Your task to perform on an android device: turn off translation in the chrome app Image 0: 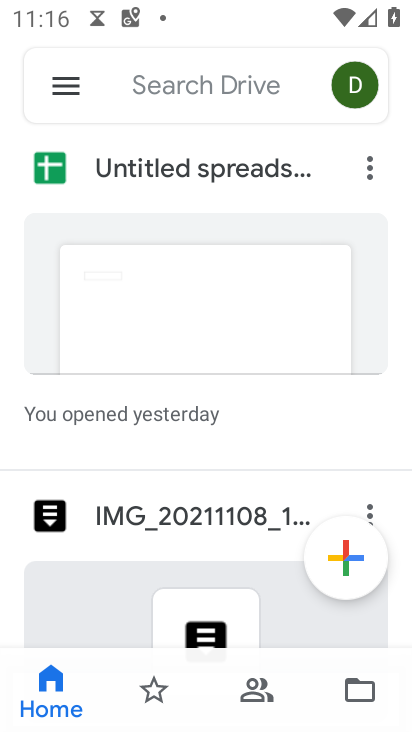
Step 0: press home button
Your task to perform on an android device: turn off translation in the chrome app Image 1: 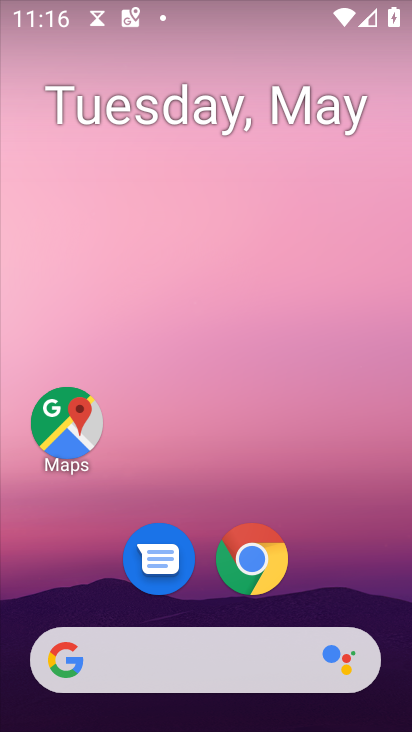
Step 1: click (252, 556)
Your task to perform on an android device: turn off translation in the chrome app Image 2: 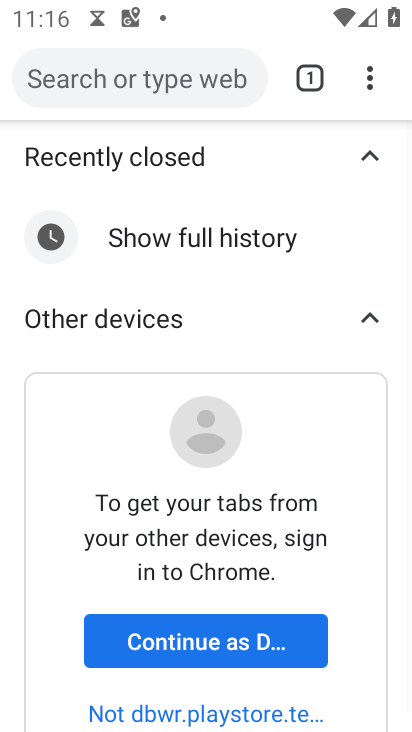
Step 2: drag from (379, 91) to (110, 625)
Your task to perform on an android device: turn off translation in the chrome app Image 3: 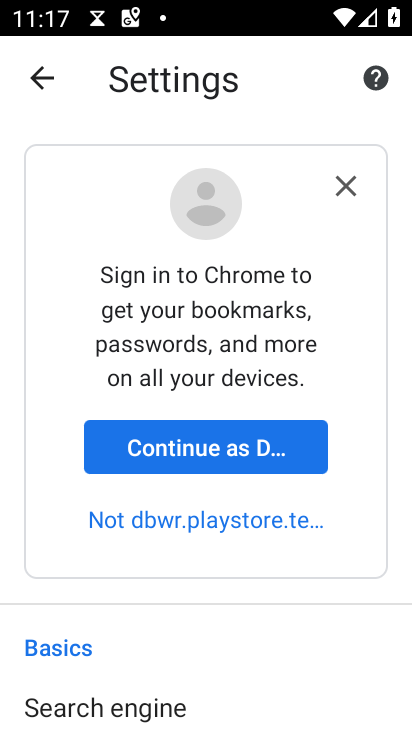
Step 3: drag from (232, 604) to (193, 210)
Your task to perform on an android device: turn off translation in the chrome app Image 4: 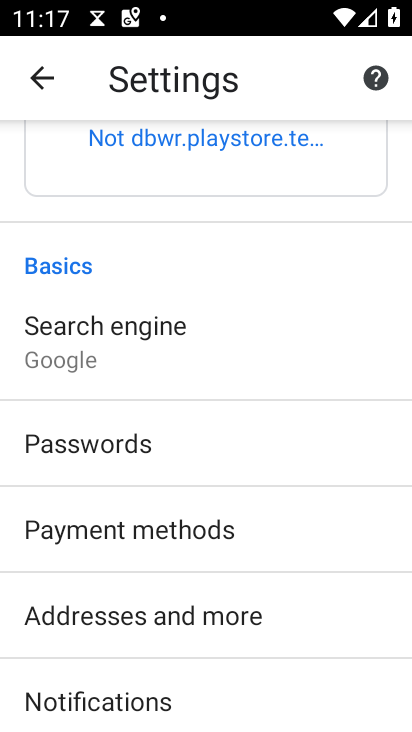
Step 4: drag from (256, 591) to (222, 269)
Your task to perform on an android device: turn off translation in the chrome app Image 5: 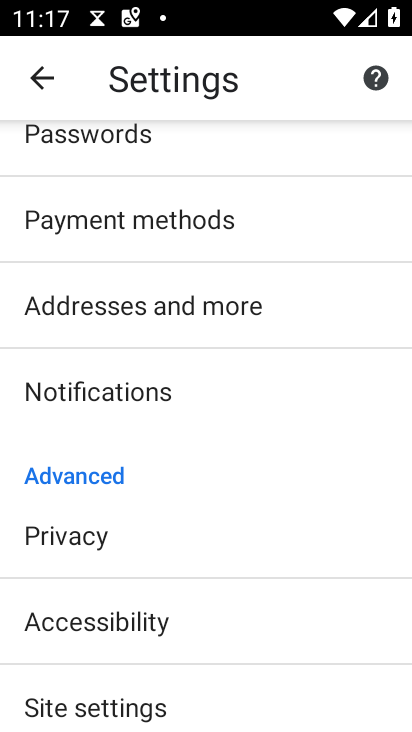
Step 5: drag from (199, 608) to (213, 242)
Your task to perform on an android device: turn off translation in the chrome app Image 6: 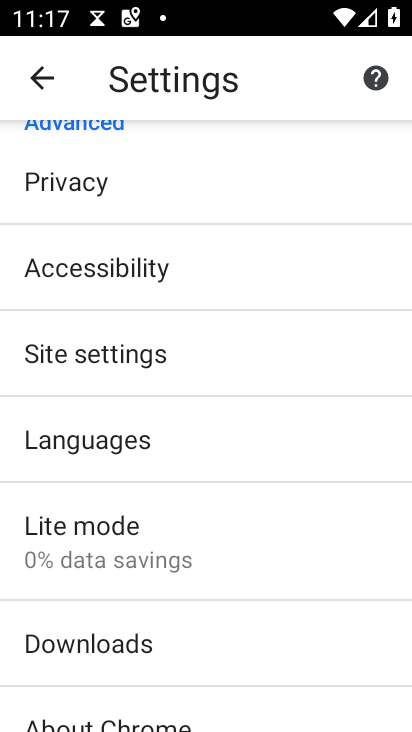
Step 6: click (78, 463)
Your task to perform on an android device: turn off translation in the chrome app Image 7: 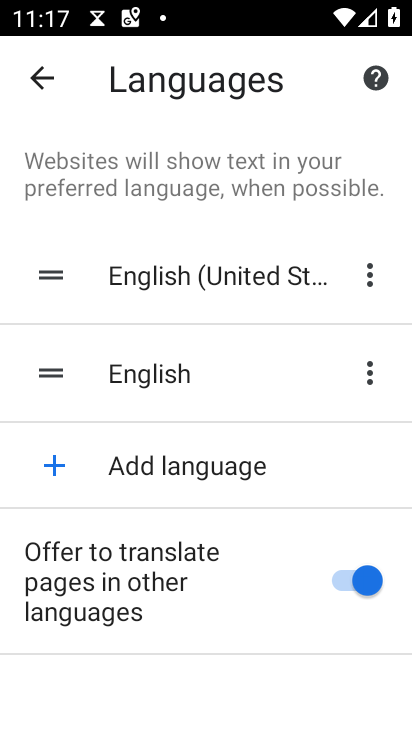
Step 7: drag from (140, 629) to (179, 197)
Your task to perform on an android device: turn off translation in the chrome app Image 8: 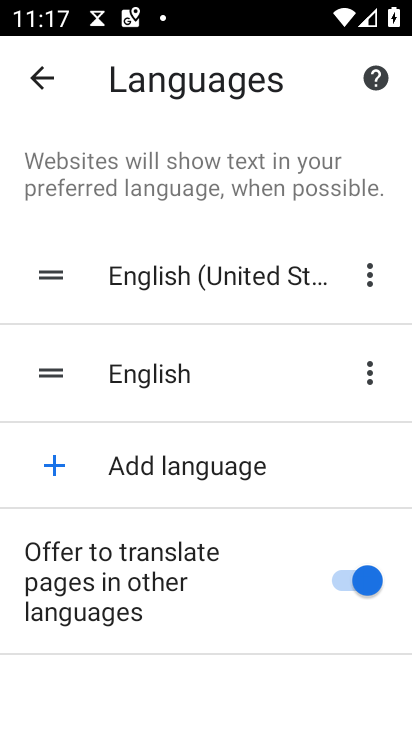
Step 8: click (352, 590)
Your task to perform on an android device: turn off translation in the chrome app Image 9: 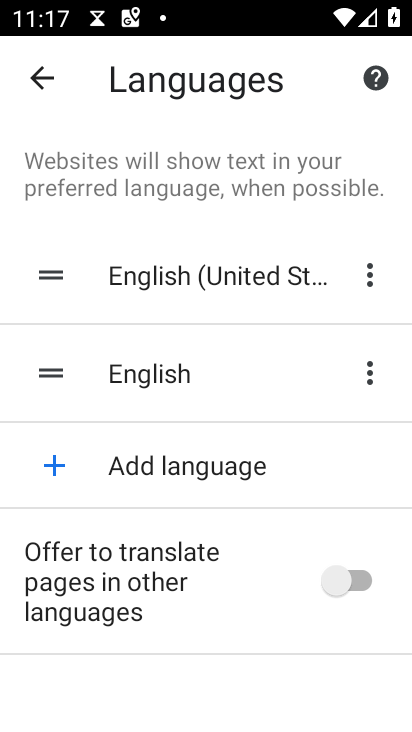
Step 9: task complete